Your task to perform on an android device: Go to Yahoo.com Image 0: 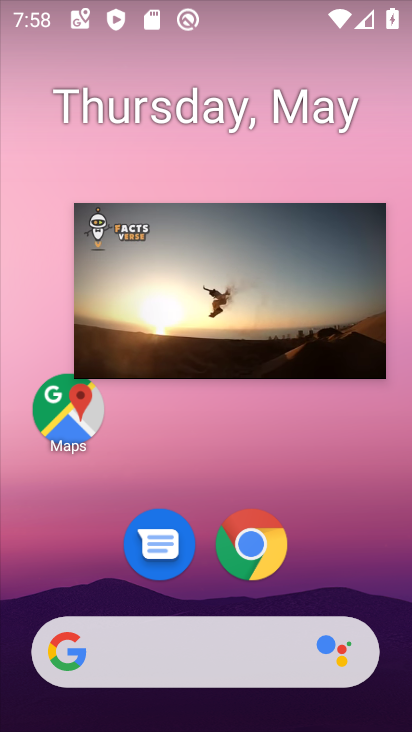
Step 0: press home button
Your task to perform on an android device: Go to Yahoo.com Image 1: 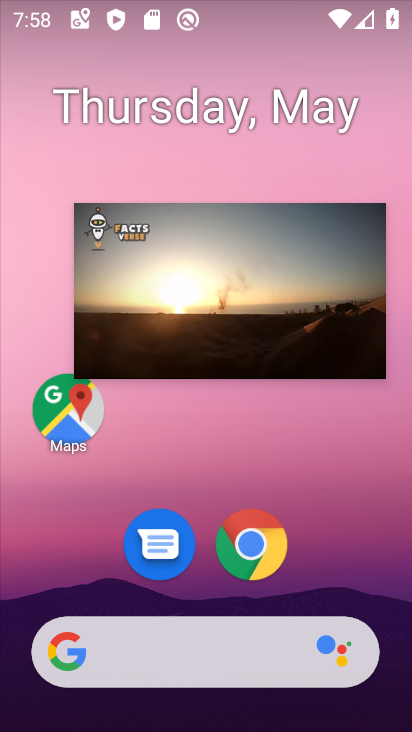
Step 1: drag from (221, 314) to (209, 703)
Your task to perform on an android device: Go to Yahoo.com Image 2: 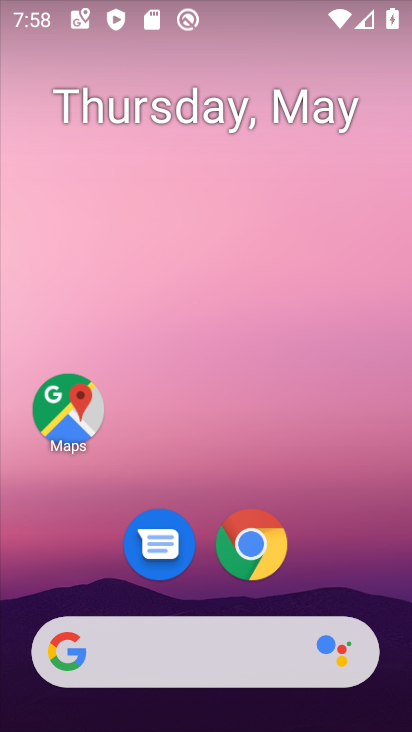
Step 2: drag from (404, 730) to (318, 89)
Your task to perform on an android device: Go to Yahoo.com Image 3: 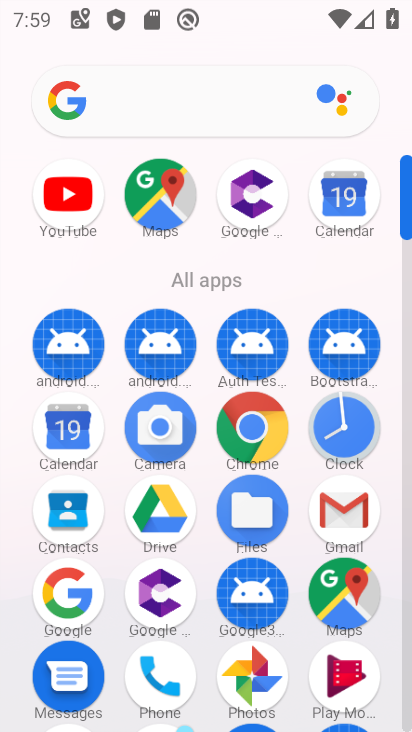
Step 3: click (264, 443)
Your task to perform on an android device: Go to Yahoo.com Image 4: 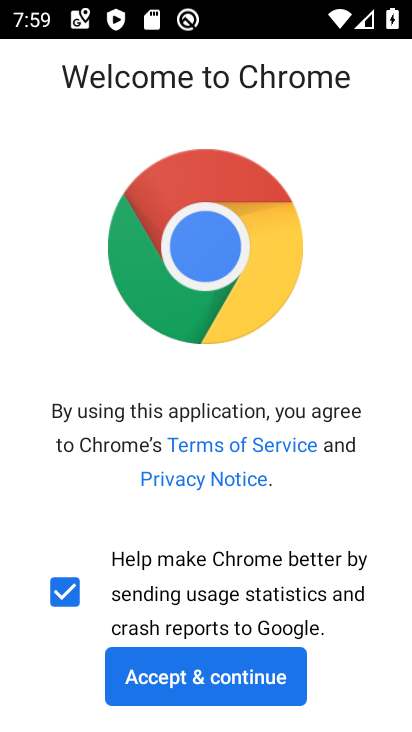
Step 4: click (264, 673)
Your task to perform on an android device: Go to Yahoo.com Image 5: 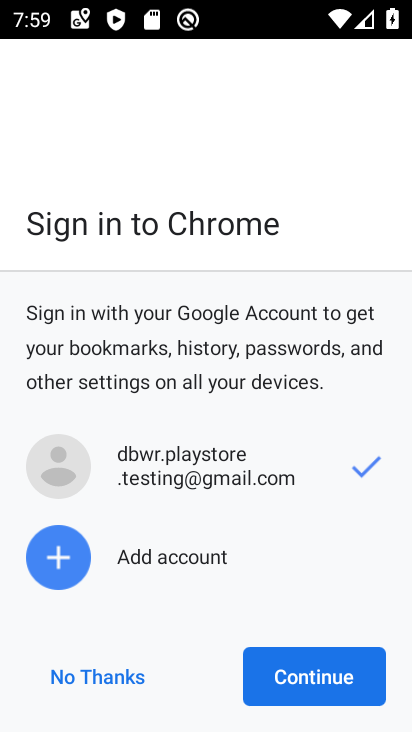
Step 5: click (292, 675)
Your task to perform on an android device: Go to Yahoo.com Image 6: 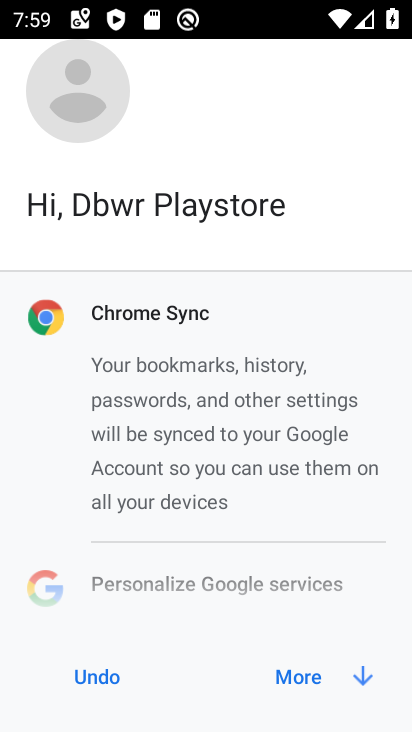
Step 6: click (292, 675)
Your task to perform on an android device: Go to Yahoo.com Image 7: 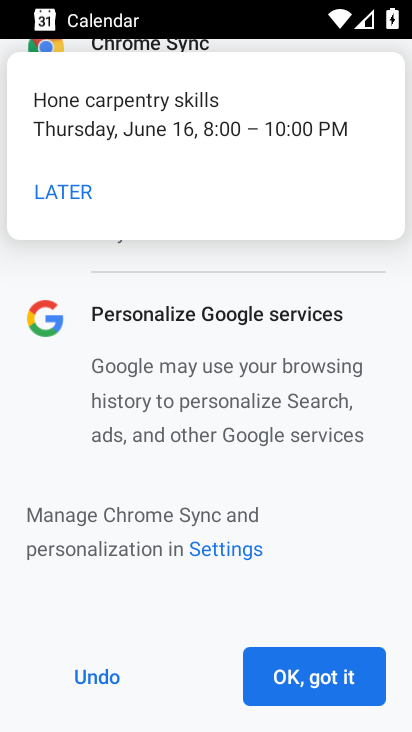
Step 7: click (292, 675)
Your task to perform on an android device: Go to Yahoo.com Image 8: 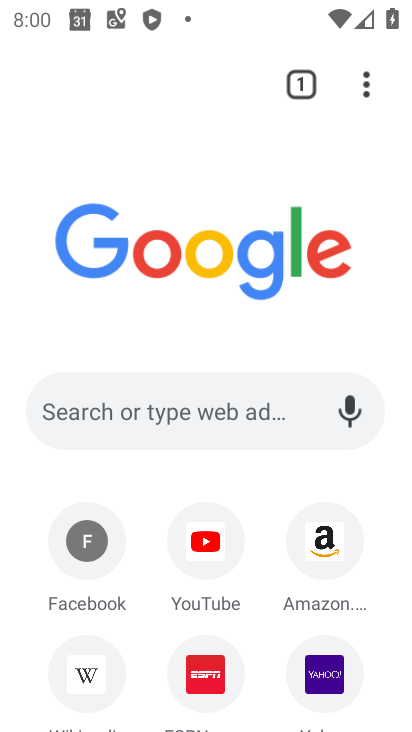
Step 8: click (152, 407)
Your task to perform on an android device: Go to Yahoo.com Image 9: 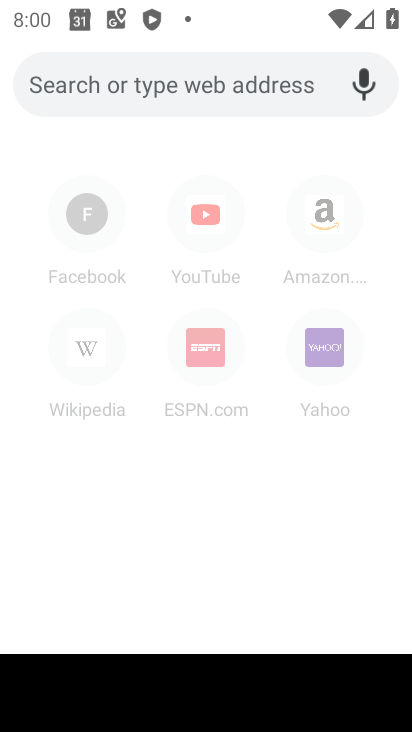
Step 9: type "Yahoo.com"
Your task to perform on an android device: Go to Yahoo.com Image 10: 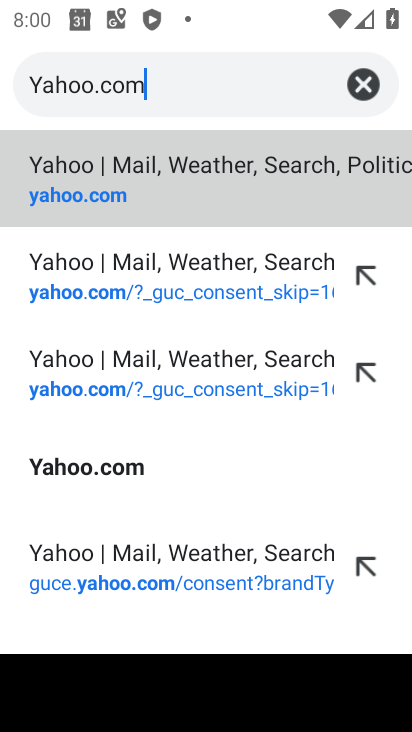
Step 10: click (303, 166)
Your task to perform on an android device: Go to Yahoo.com Image 11: 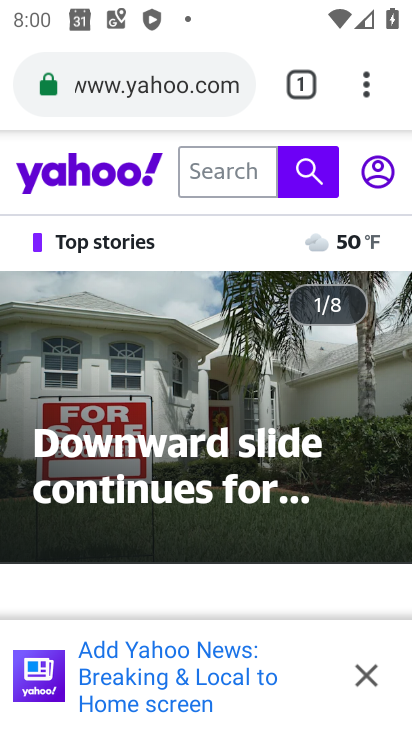
Step 11: task complete